Your task to perform on an android device: Open Google Maps Image 0: 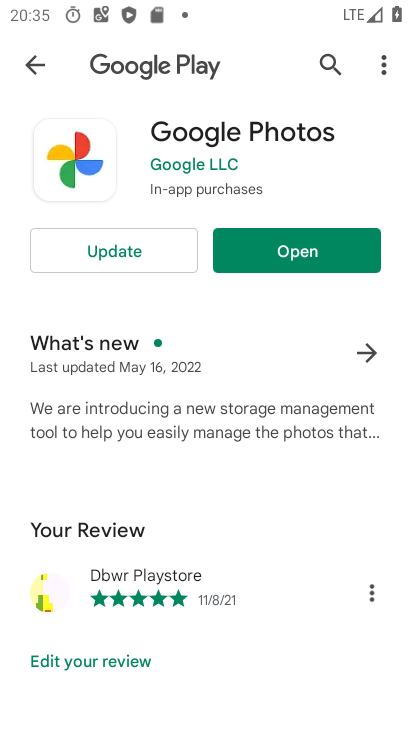
Step 0: press home button
Your task to perform on an android device: Open Google Maps Image 1: 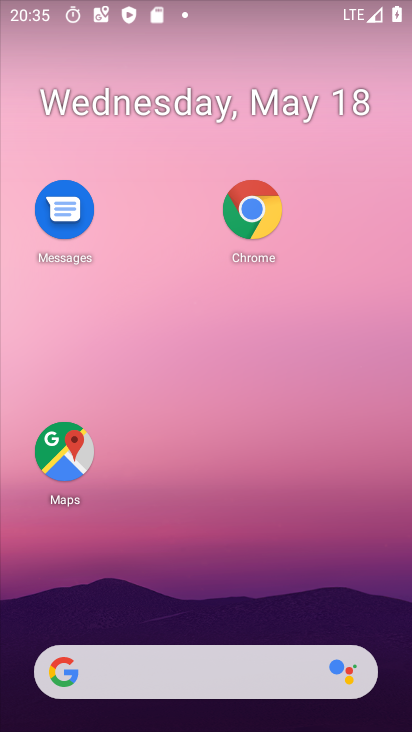
Step 1: click (79, 436)
Your task to perform on an android device: Open Google Maps Image 2: 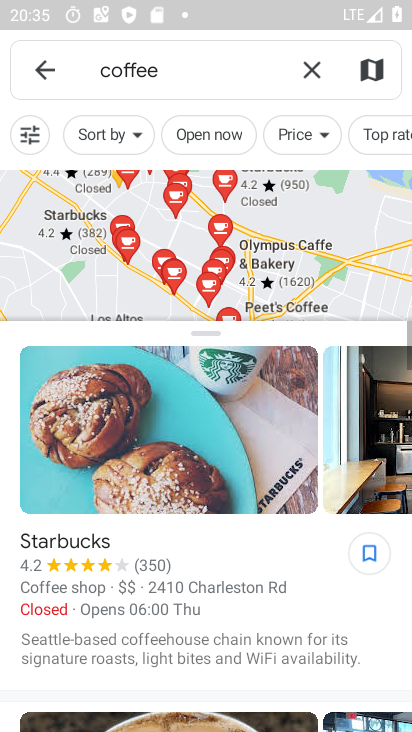
Step 2: task complete